Your task to perform on an android device: turn on notifications settings in the gmail app Image 0: 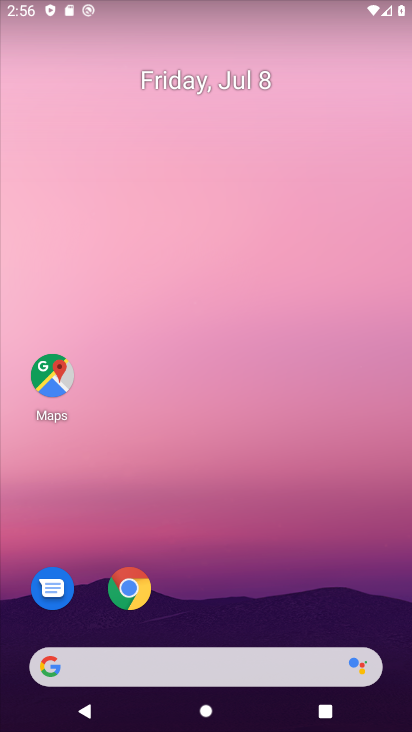
Step 0: drag from (205, 625) to (336, 127)
Your task to perform on an android device: turn on notifications settings in the gmail app Image 1: 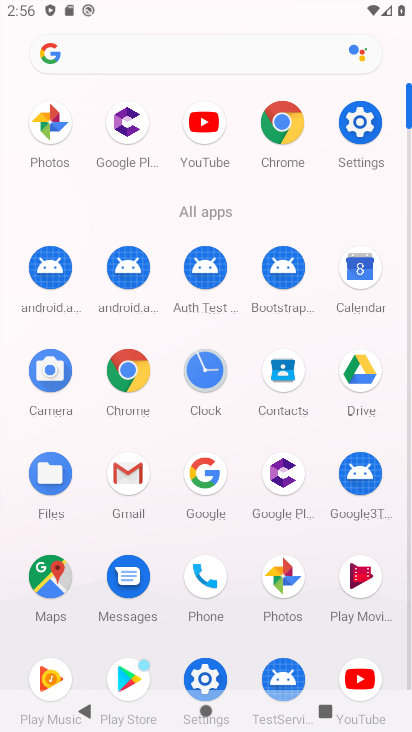
Step 1: click (133, 479)
Your task to perform on an android device: turn on notifications settings in the gmail app Image 2: 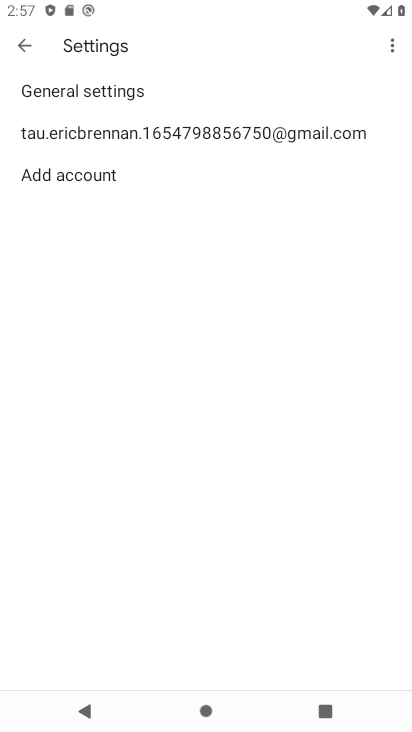
Step 2: click (247, 134)
Your task to perform on an android device: turn on notifications settings in the gmail app Image 3: 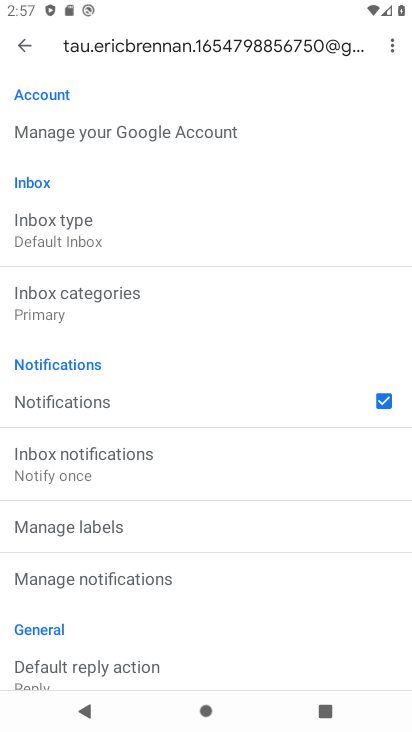
Step 3: click (64, 401)
Your task to perform on an android device: turn on notifications settings in the gmail app Image 4: 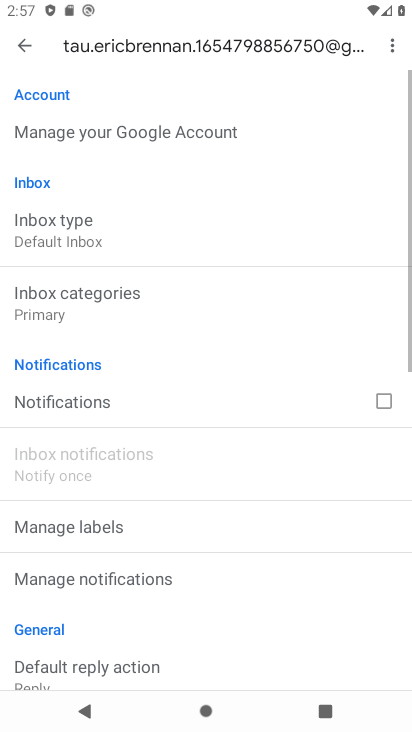
Step 4: click (64, 401)
Your task to perform on an android device: turn on notifications settings in the gmail app Image 5: 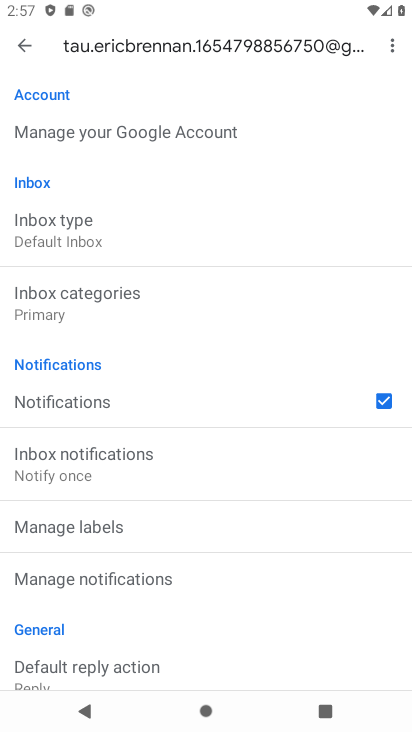
Step 5: task complete